Your task to perform on an android device: Set the phone to "Do not disturb". Image 0: 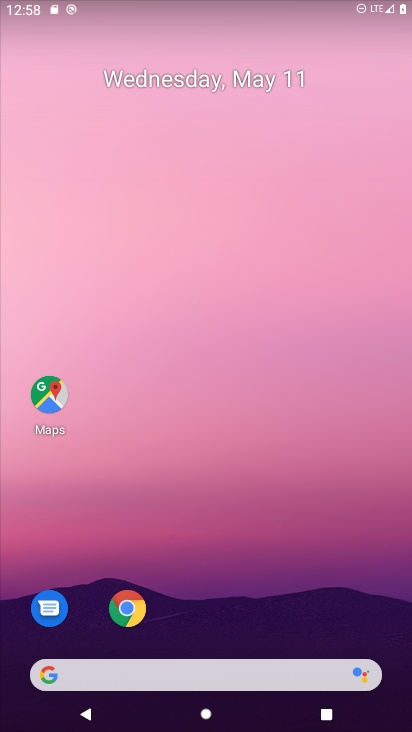
Step 0: drag from (281, 545) to (299, 84)
Your task to perform on an android device: Set the phone to "Do not disturb". Image 1: 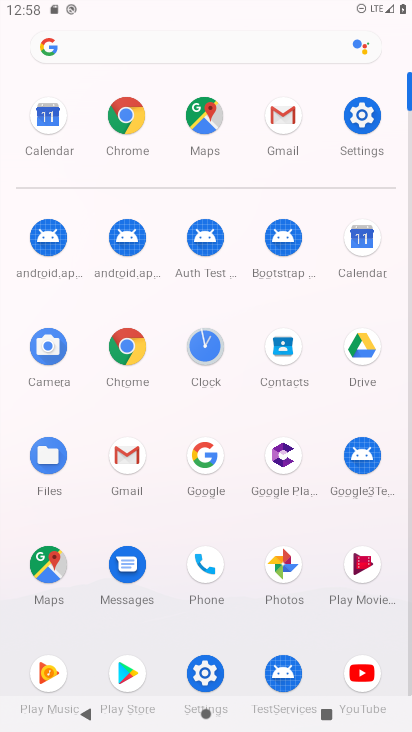
Step 1: click (359, 119)
Your task to perform on an android device: Set the phone to "Do not disturb". Image 2: 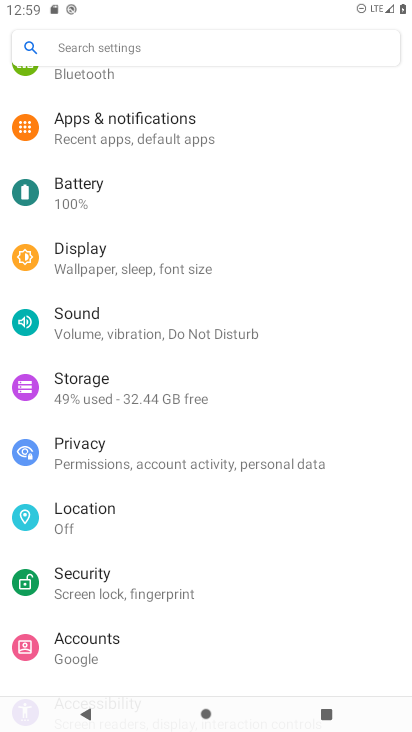
Step 2: click (220, 328)
Your task to perform on an android device: Set the phone to "Do not disturb". Image 3: 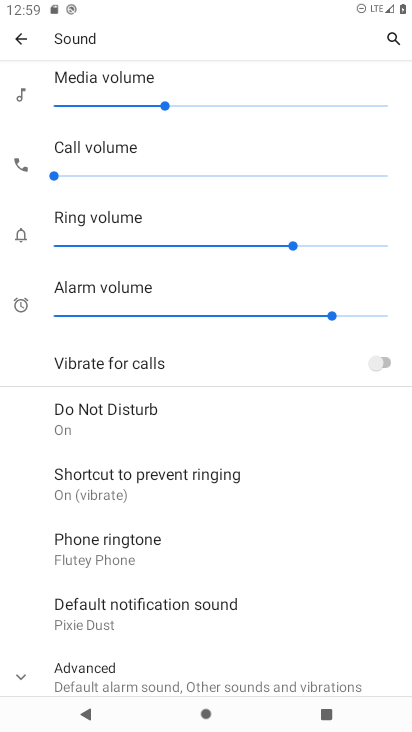
Step 3: task complete